Your task to perform on an android device: Toggle the flashlight Image 0: 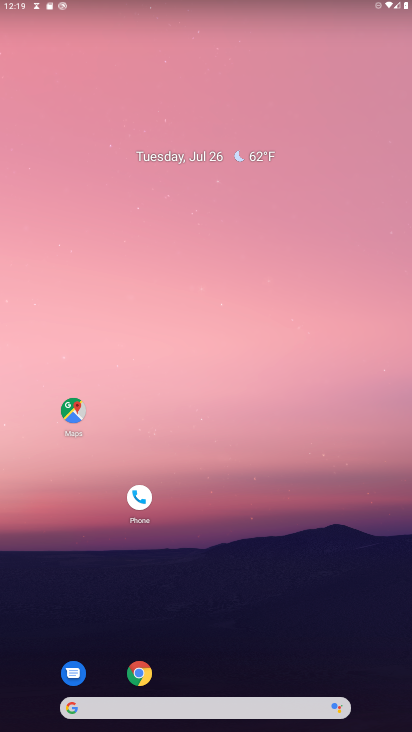
Step 0: press home button
Your task to perform on an android device: Toggle the flashlight Image 1: 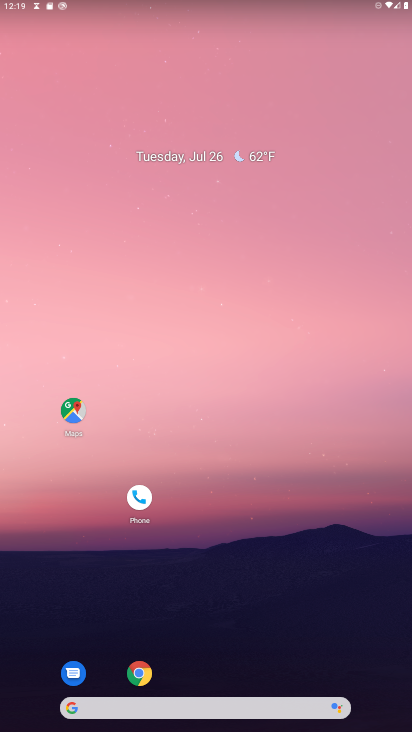
Step 1: task complete